Your task to perform on an android device: turn off location Image 0: 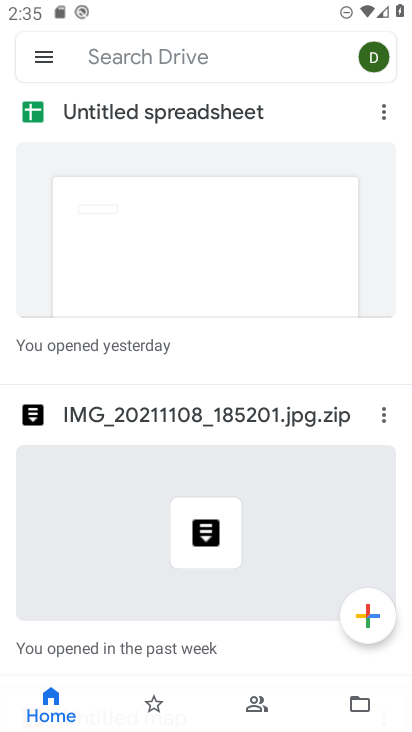
Step 0: press home button
Your task to perform on an android device: turn off location Image 1: 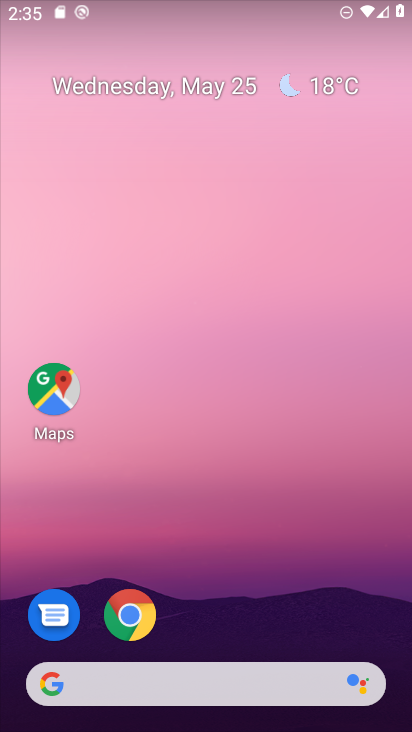
Step 1: drag from (282, 544) to (311, 17)
Your task to perform on an android device: turn off location Image 2: 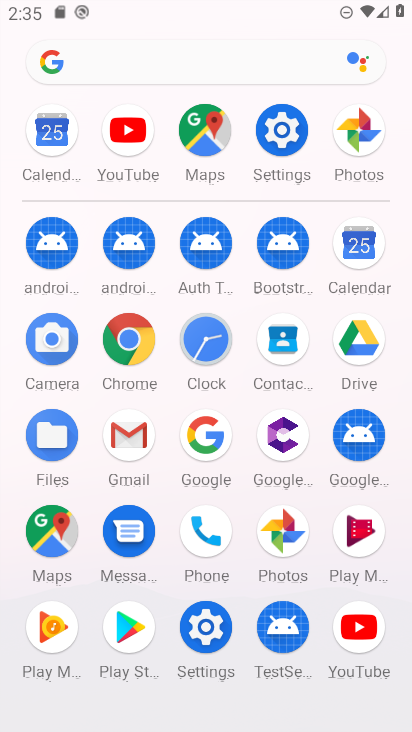
Step 2: click (276, 125)
Your task to perform on an android device: turn off location Image 3: 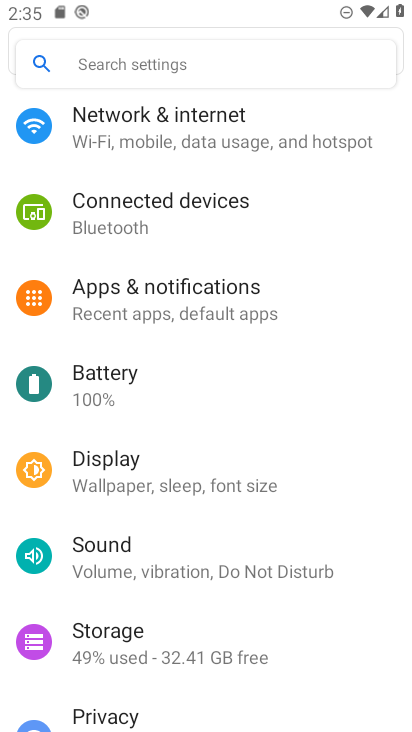
Step 3: drag from (207, 394) to (262, 119)
Your task to perform on an android device: turn off location Image 4: 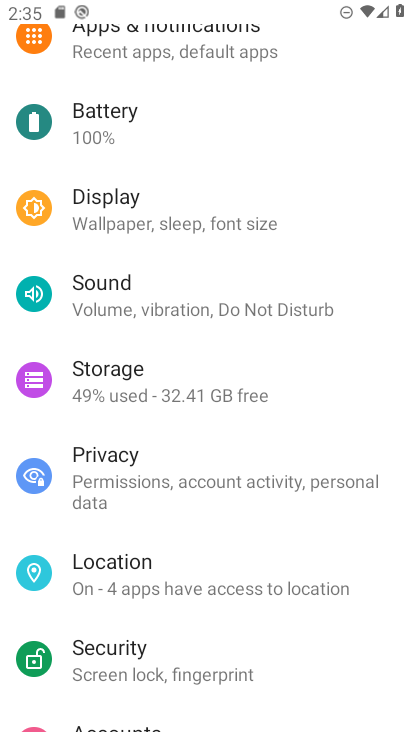
Step 4: click (181, 565)
Your task to perform on an android device: turn off location Image 5: 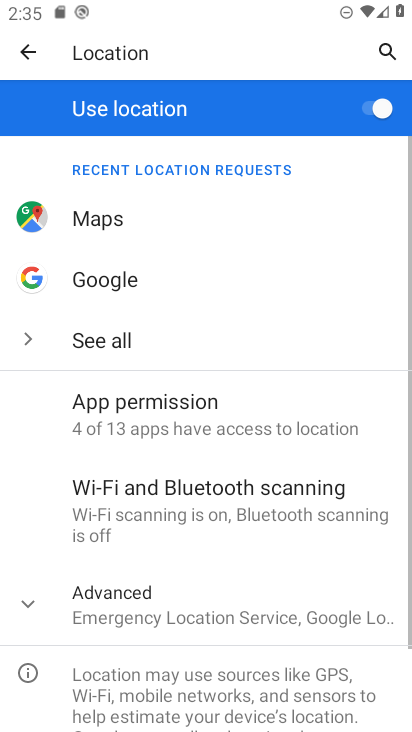
Step 5: click (358, 104)
Your task to perform on an android device: turn off location Image 6: 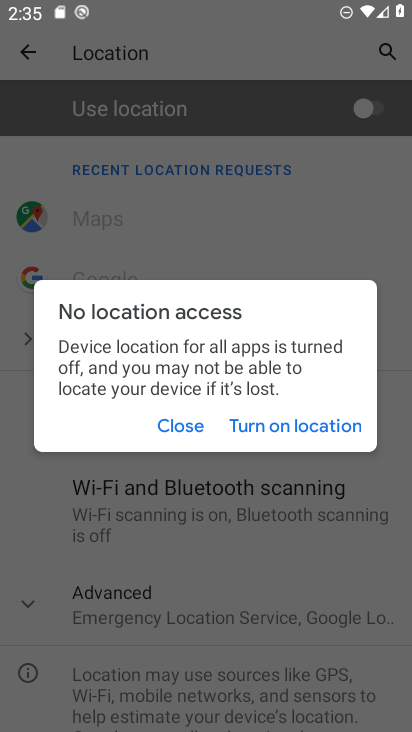
Step 6: click (174, 412)
Your task to perform on an android device: turn off location Image 7: 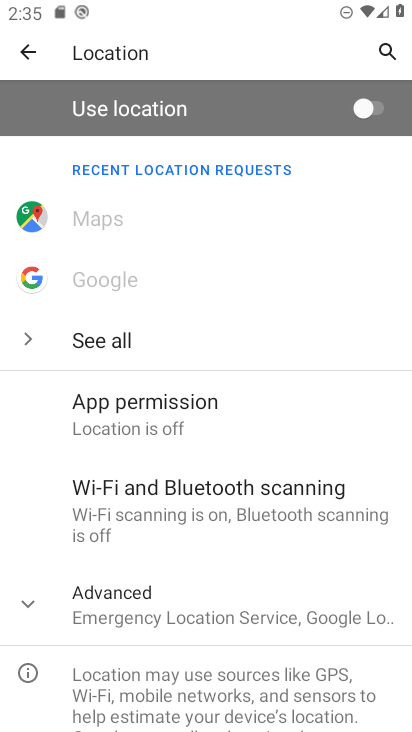
Step 7: task complete